Your task to perform on an android device: set an alarm Image 0: 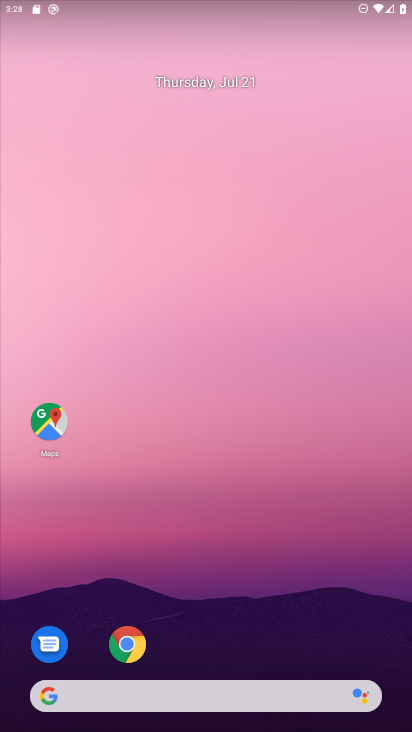
Step 0: click (358, 410)
Your task to perform on an android device: set an alarm Image 1: 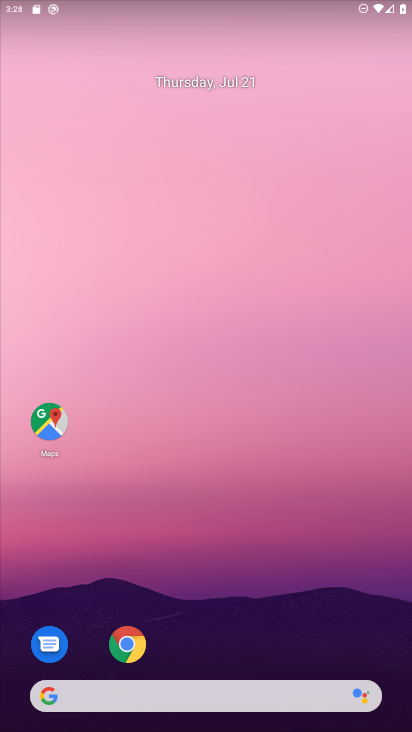
Step 1: drag from (81, 505) to (179, 312)
Your task to perform on an android device: set an alarm Image 2: 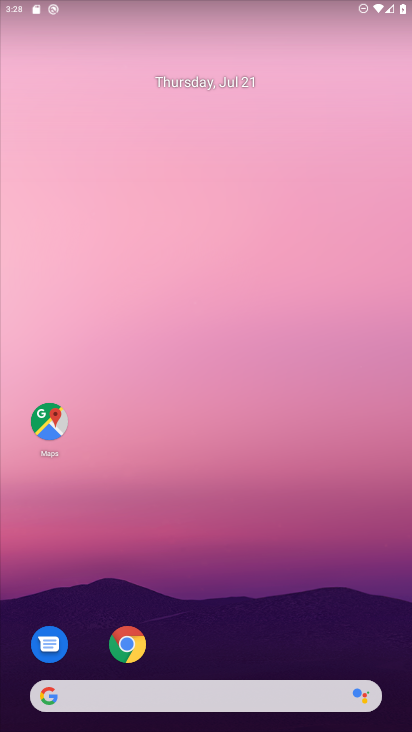
Step 2: drag from (23, 453) to (257, 54)
Your task to perform on an android device: set an alarm Image 3: 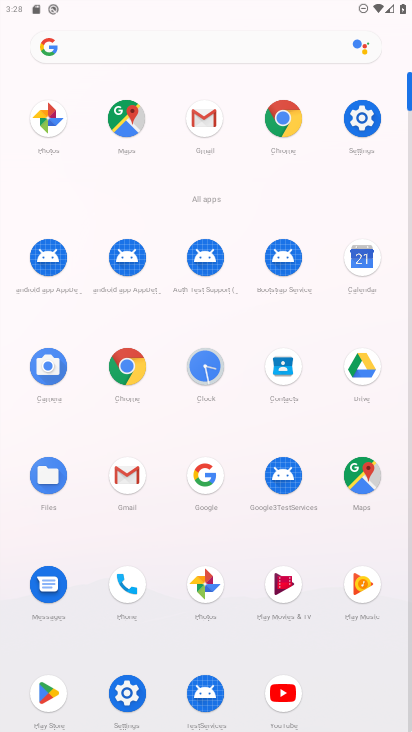
Step 3: click (202, 374)
Your task to perform on an android device: set an alarm Image 4: 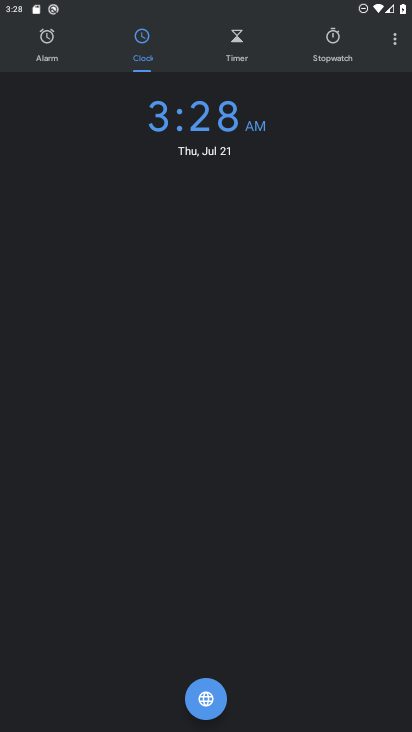
Step 4: click (45, 57)
Your task to perform on an android device: set an alarm Image 5: 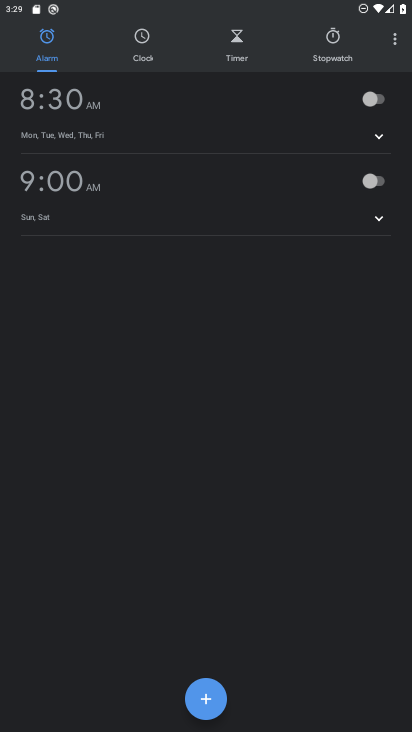
Step 5: click (203, 700)
Your task to perform on an android device: set an alarm Image 6: 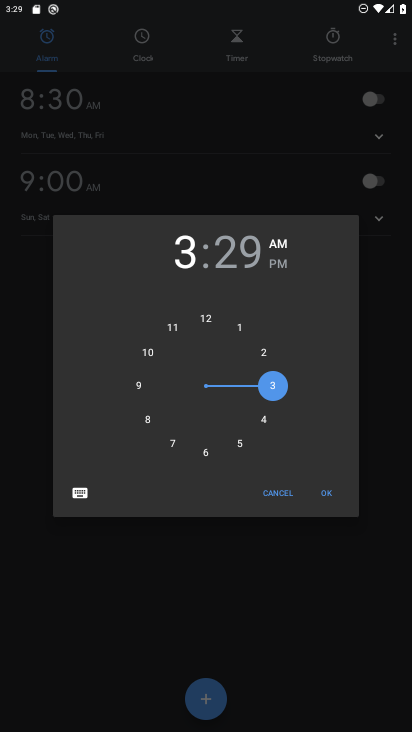
Step 6: click (264, 424)
Your task to perform on an android device: set an alarm Image 7: 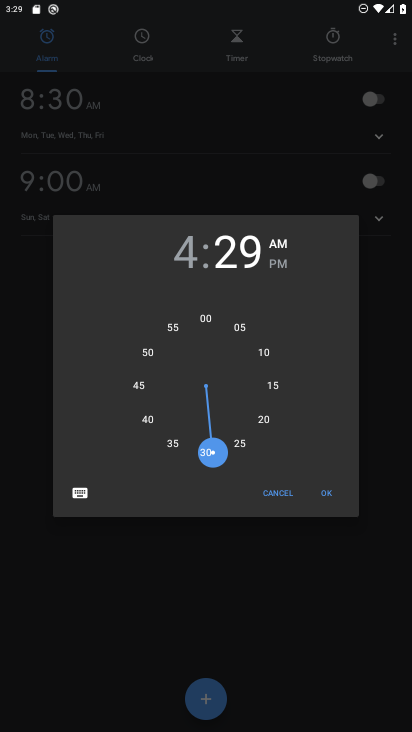
Step 7: click (134, 390)
Your task to perform on an android device: set an alarm Image 8: 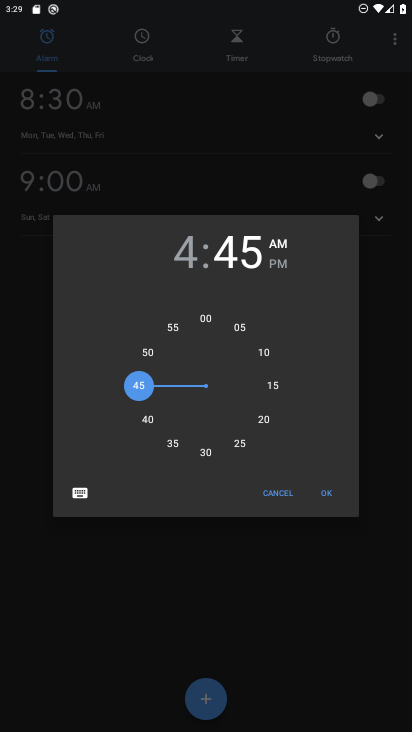
Step 8: click (316, 504)
Your task to perform on an android device: set an alarm Image 9: 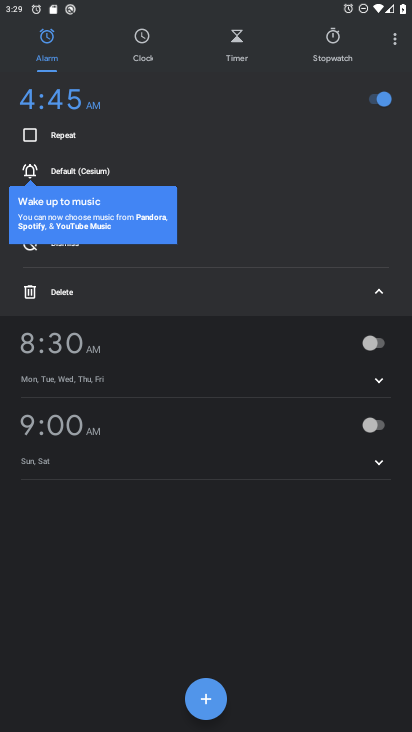
Step 9: task complete